Your task to perform on an android device: turn on location history Image 0: 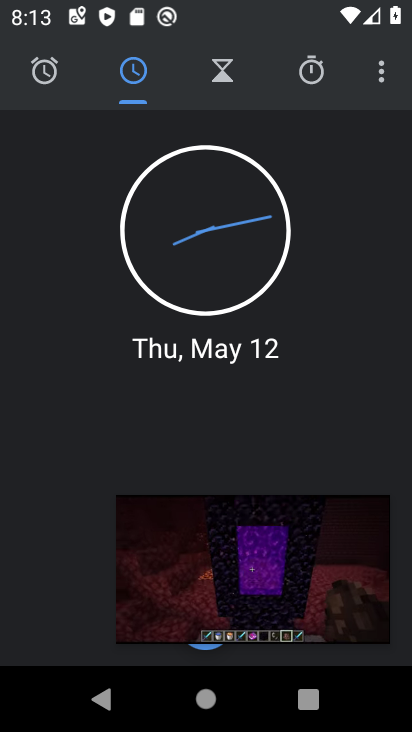
Step 0: drag from (313, 582) to (207, 710)
Your task to perform on an android device: turn on location history Image 1: 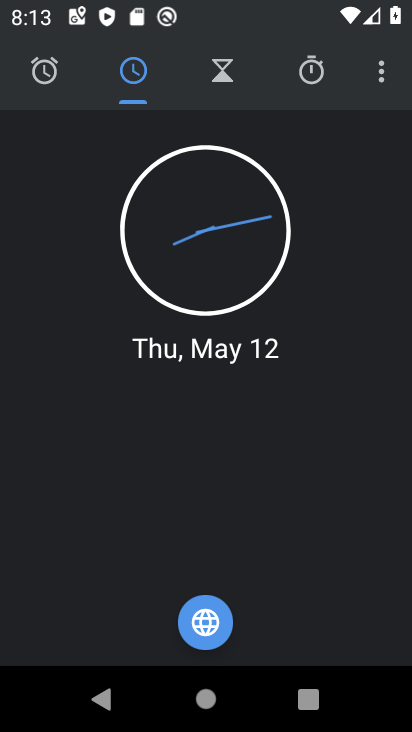
Step 1: press home button
Your task to perform on an android device: turn on location history Image 2: 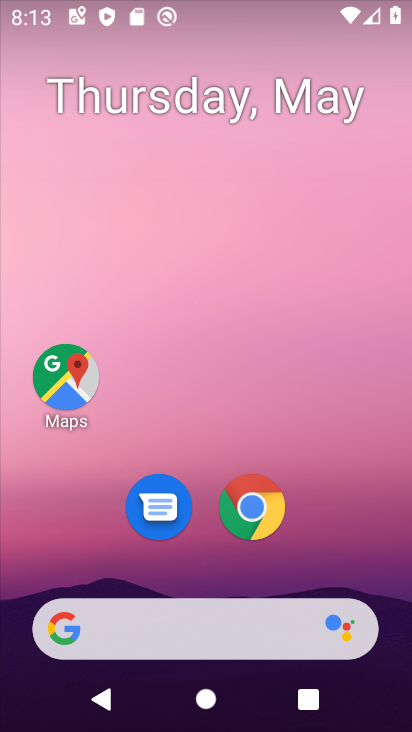
Step 2: drag from (328, 681) to (213, 202)
Your task to perform on an android device: turn on location history Image 3: 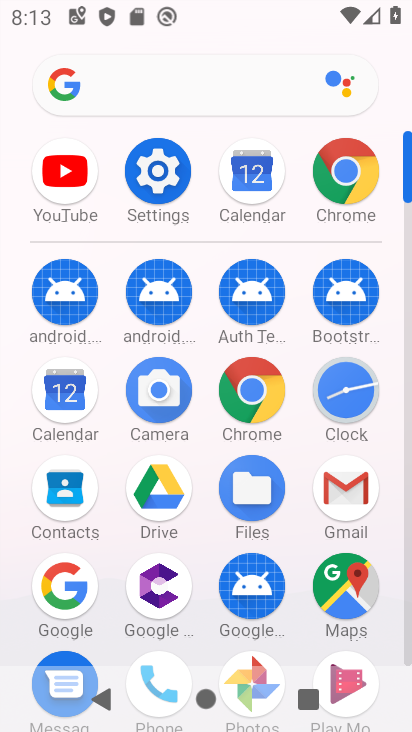
Step 3: click (176, 184)
Your task to perform on an android device: turn on location history Image 4: 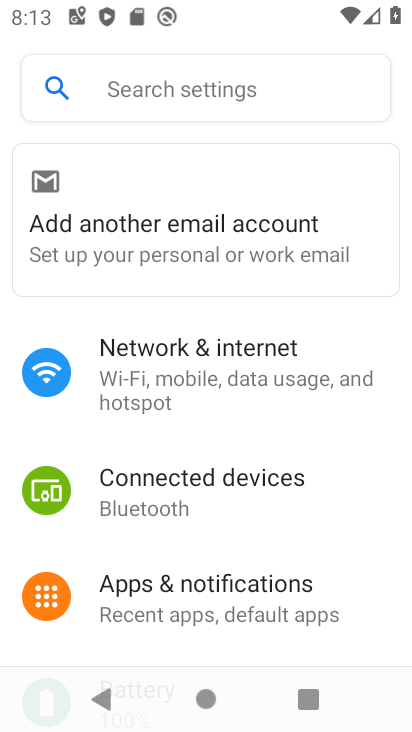
Step 4: click (120, 103)
Your task to perform on an android device: turn on location history Image 5: 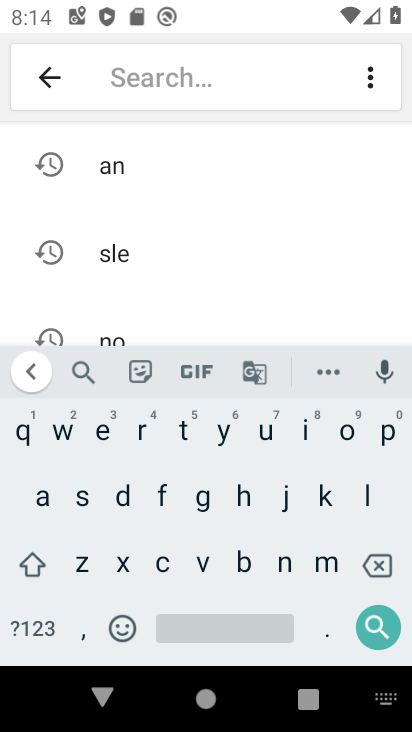
Step 5: click (370, 489)
Your task to perform on an android device: turn on location history Image 6: 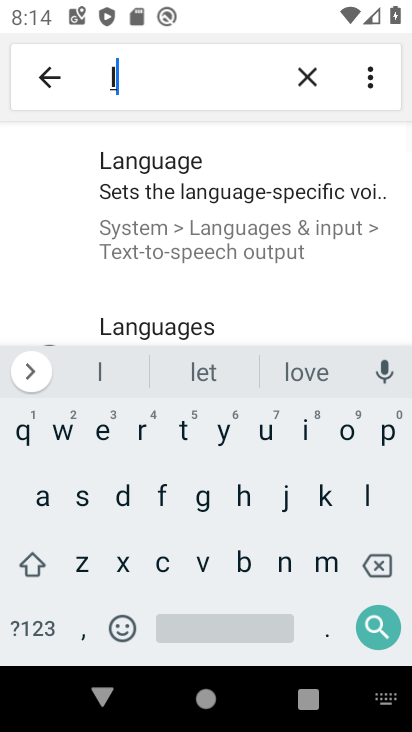
Step 6: click (344, 438)
Your task to perform on an android device: turn on location history Image 7: 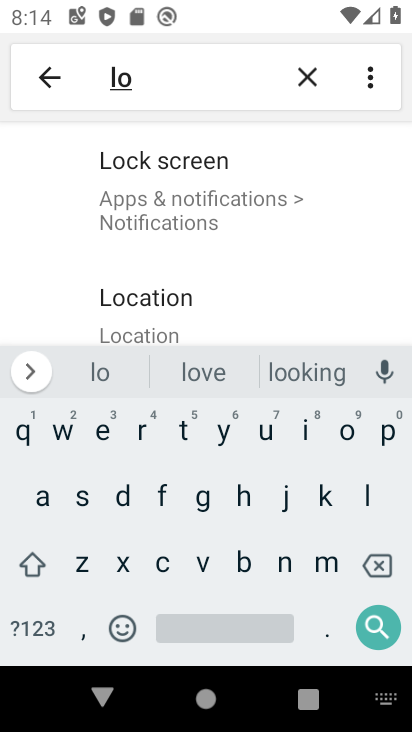
Step 7: click (179, 306)
Your task to perform on an android device: turn on location history Image 8: 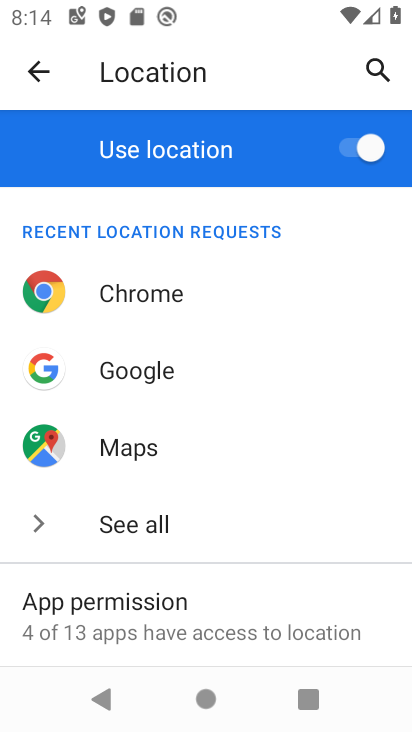
Step 8: drag from (209, 578) to (135, 271)
Your task to perform on an android device: turn on location history Image 9: 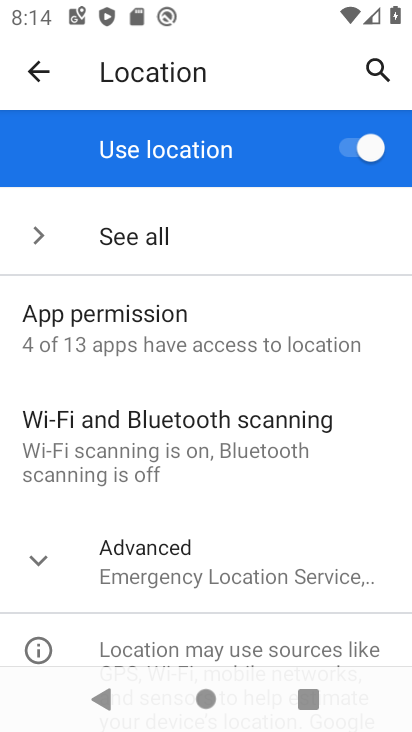
Step 9: click (155, 555)
Your task to perform on an android device: turn on location history Image 10: 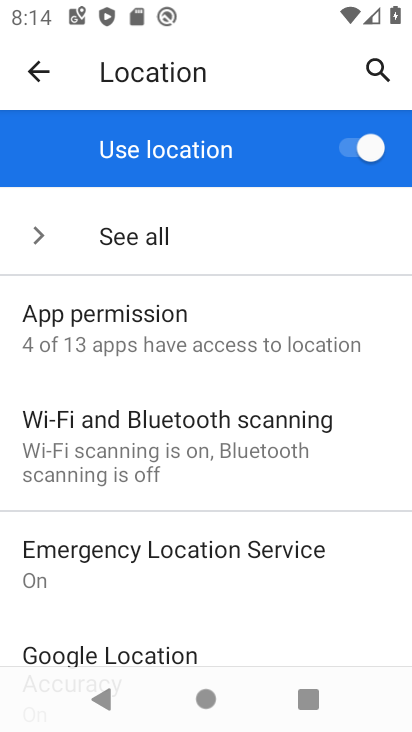
Step 10: drag from (174, 605) to (210, 439)
Your task to perform on an android device: turn on location history Image 11: 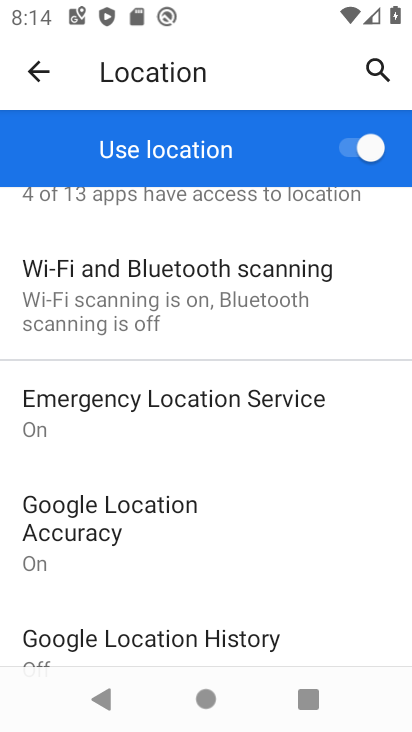
Step 11: click (179, 625)
Your task to perform on an android device: turn on location history Image 12: 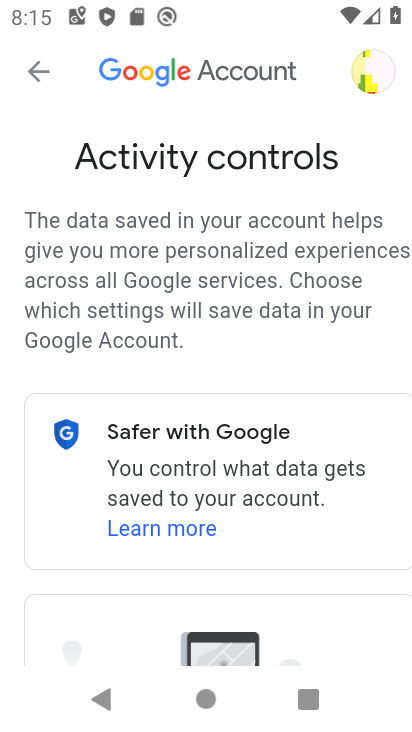
Step 12: task complete